Your task to perform on an android device: see sites visited before in the chrome app Image 0: 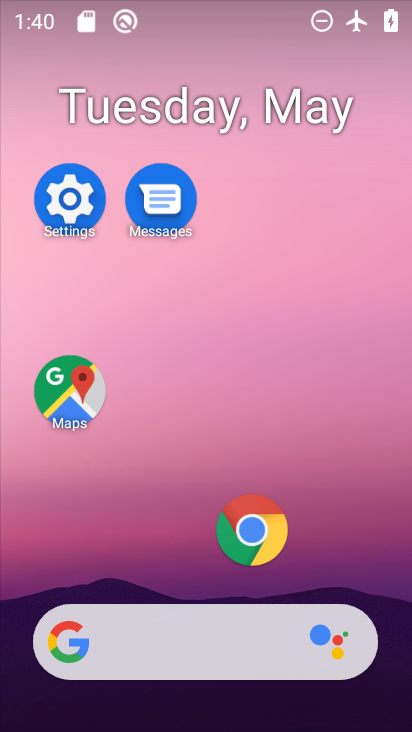
Step 0: drag from (17, 677) to (265, 228)
Your task to perform on an android device: see sites visited before in the chrome app Image 1: 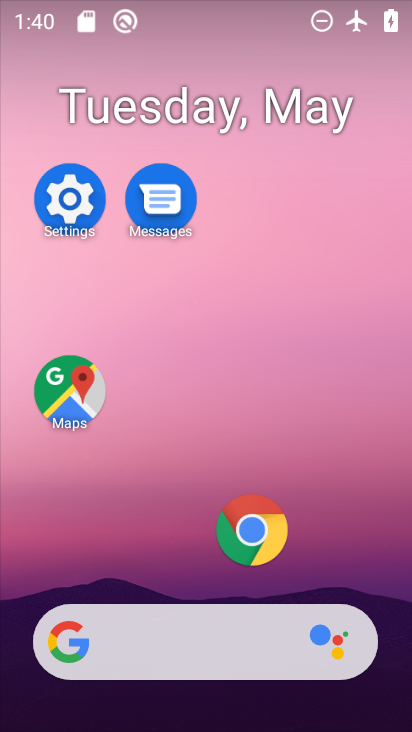
Step 1: click (252, 533)
Your task to perform on an android device: see sites visited before in the chrome app Image 2: 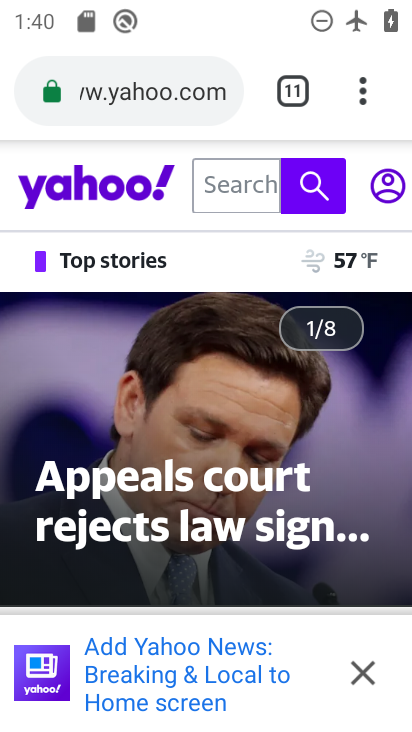
Step 2: click (371, 96)
Your task to perform on an android device: see sites visited before in the chrome app Image 3: 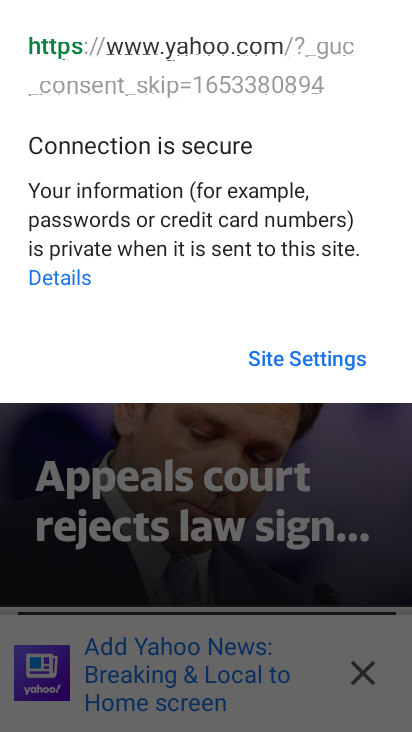
Step 3: press back button
Your task to perform on an android device: see sites visited before in the chrome app Image 4: 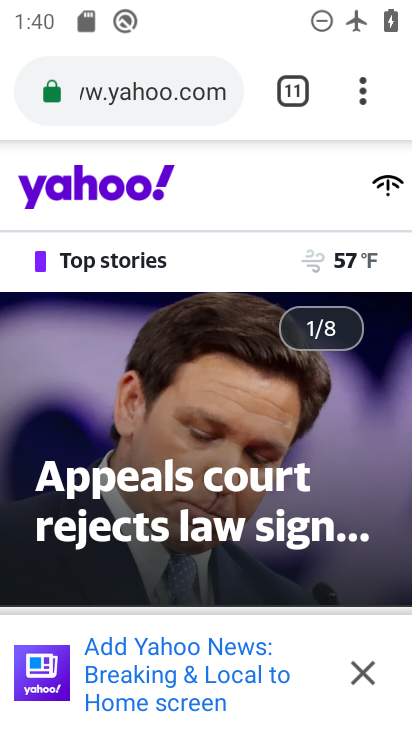
Step 4: click (361, 89)
Your task to perform on an android device: see sites visited before in the chrome app Image 5: 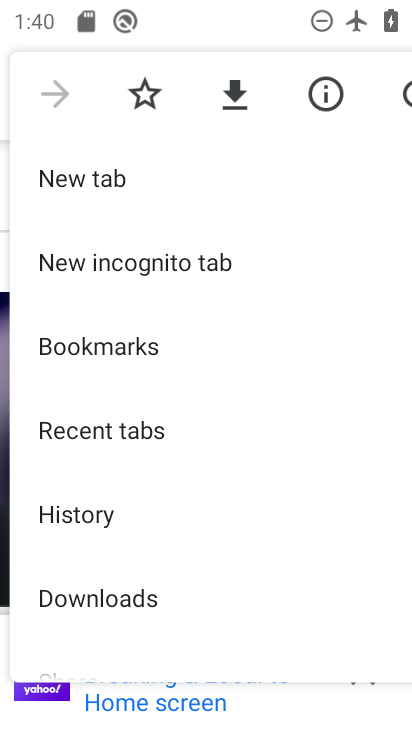
Step 5: click (69, 516)
Your task to perform on an android device: see sites visited before in the chrome app Image 6: 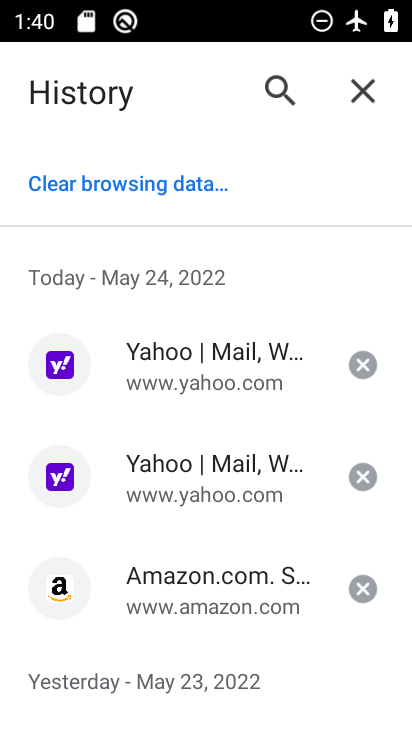
Step 6: task complete